Your task to perform on an android device: Go to Maps Image 0: 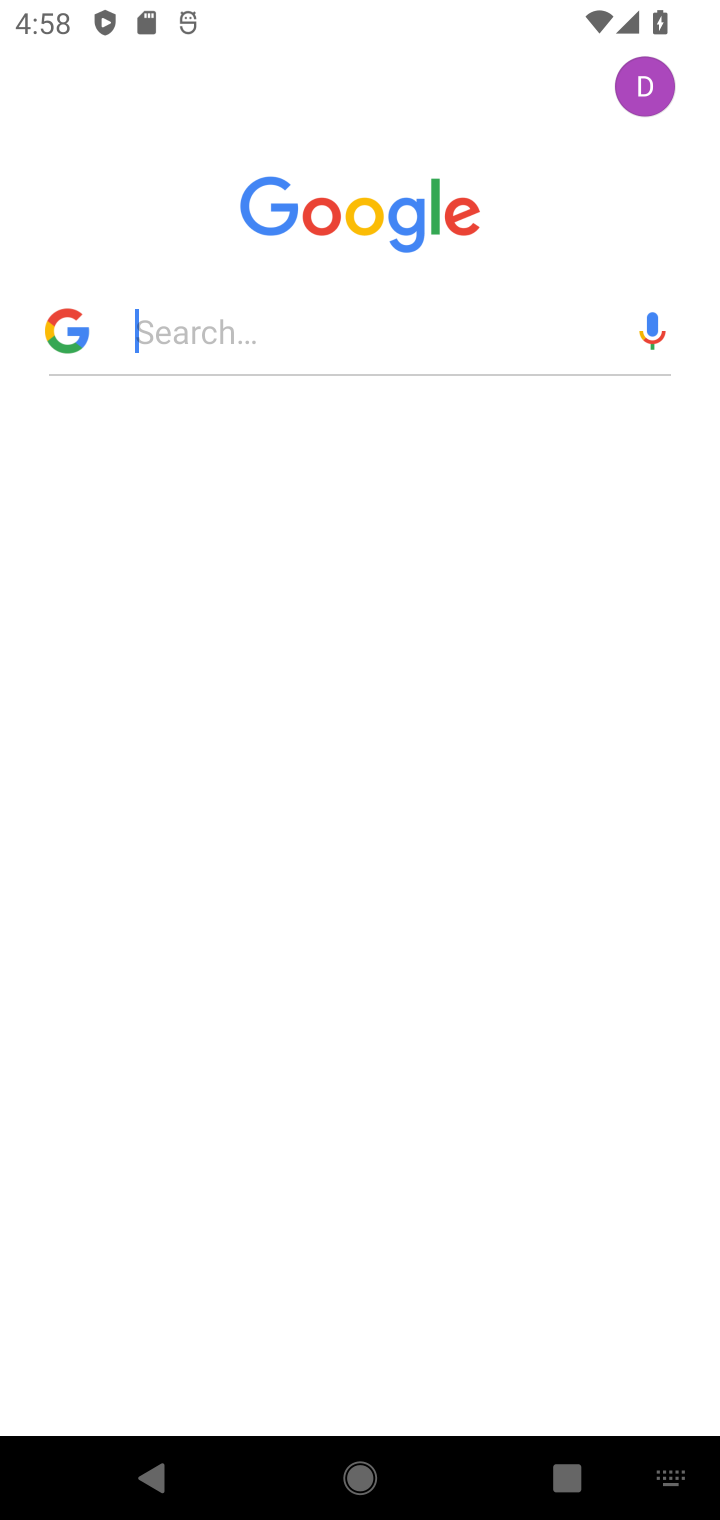
Step 0: press back button
Your task to perform on an android device: Go to Maps Image 1: 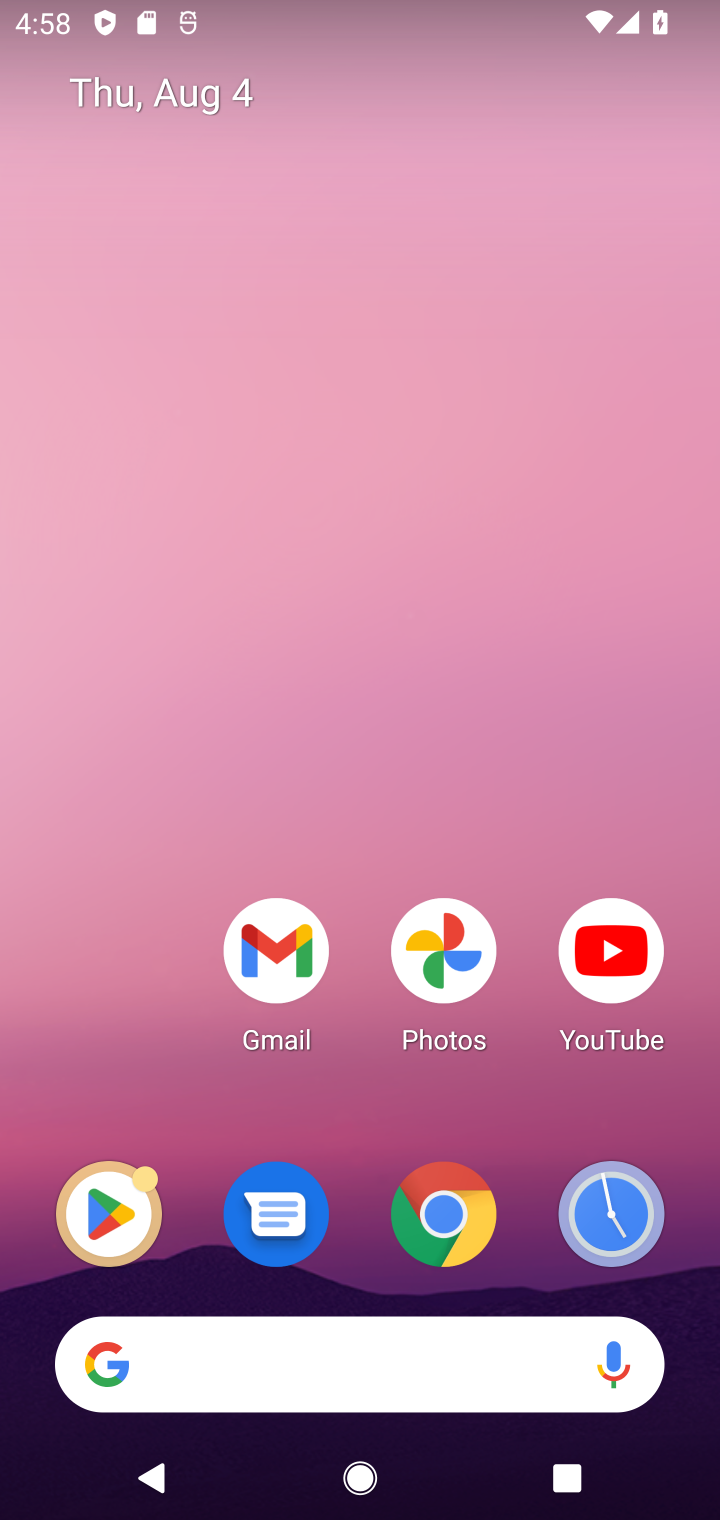
Step 1: drag from (532, 1104) to (330, 96)
Your task to perform on an android device: Go to Maps Image 2: 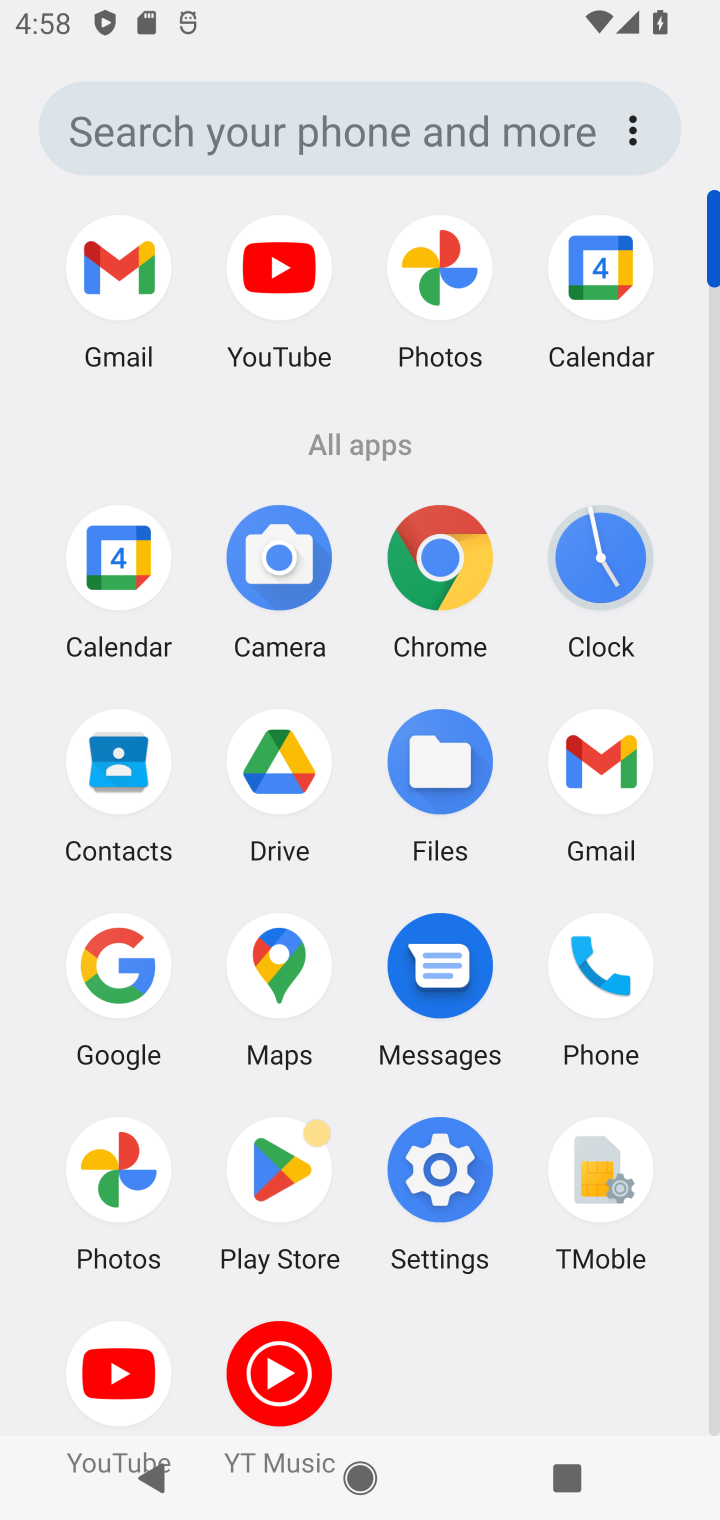
Step 2: click (309, 956)
Your task to perform on an android device: Go to Maps Image 3: 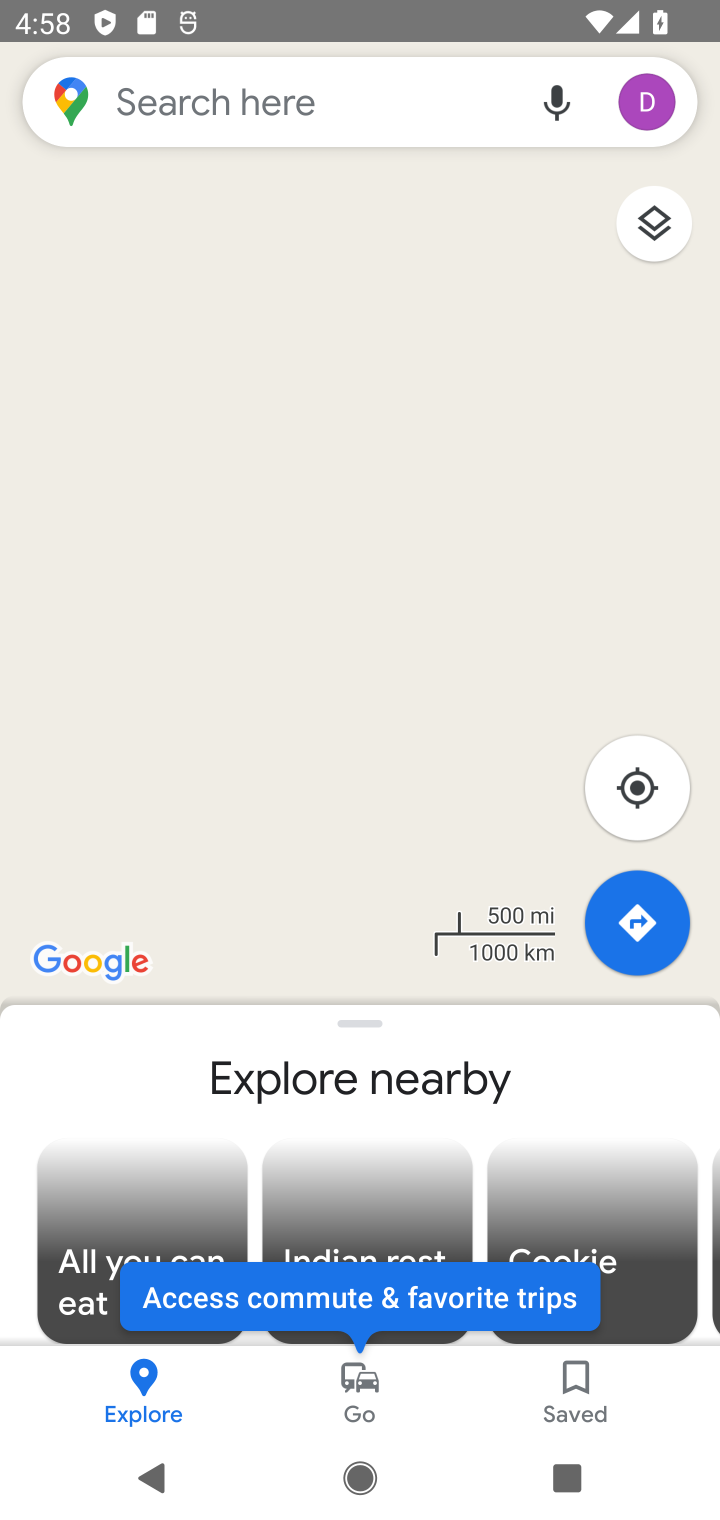
Step 3: task complete